Your task to perform on an android device: Open the map Image 0: 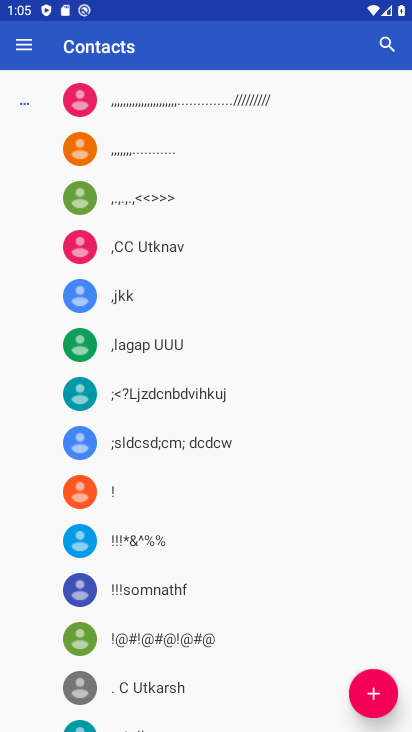
Step 0: press home button
Your task to perform on an android device: Open the map Image 1: 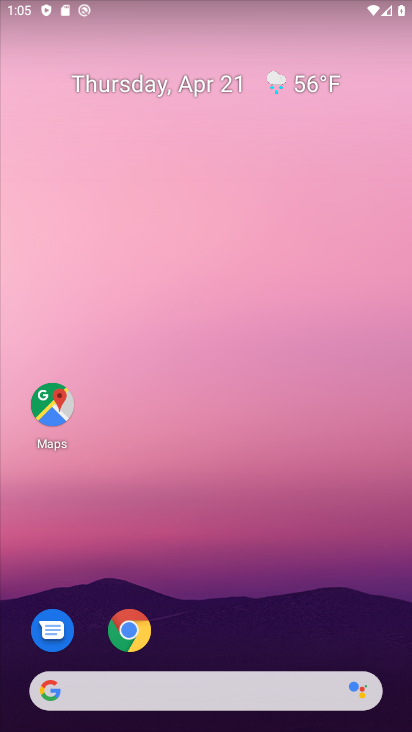
Step 1: drag from (230, 681) to (262, 15)
Your task to perform on an android device: Open the map Image 2: 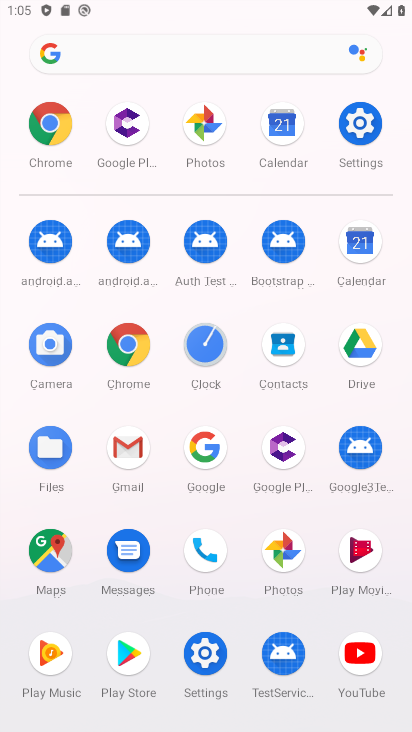
Step 2: click (52, 564)
Your task to perform on an android device: Open the map Image 3: 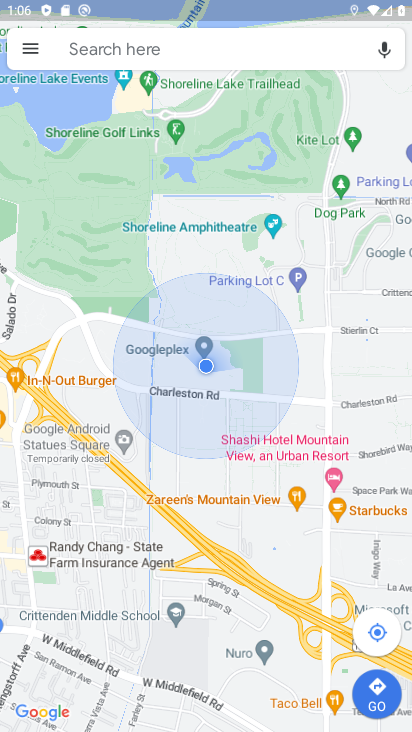
Step 3: task complete